Your task to perform on an android device: find snoozed emails in the gmail app Image 0: 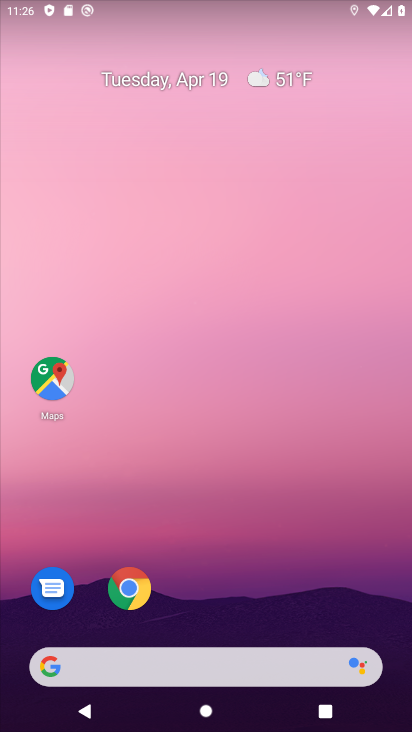
Step 0: drag from (218, 507) to (231, 8)
Your task to perform on an android device: find snoozed emails in the gmail app Image 1: 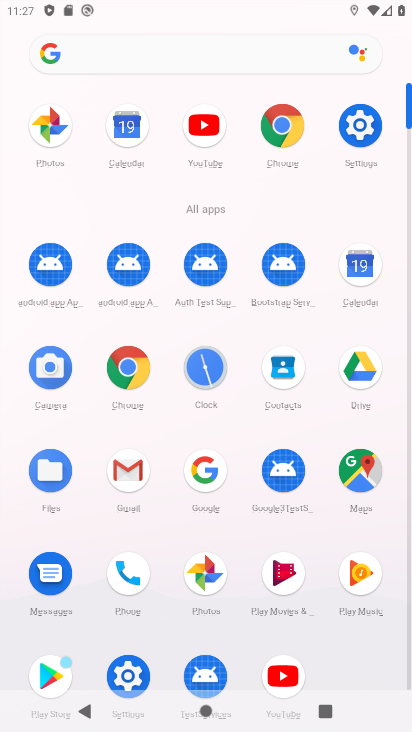
Step 1: click (127, 476)
Your task to perform on an android device: find snoozed emails in the gmail app Image 2: 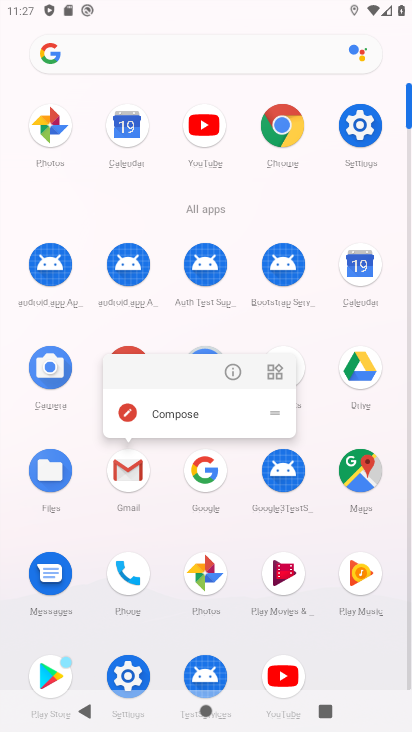
Step 2: click (124, 472)
Your task to perform on an android device: find snoozed emails in the gmail app Image 3: 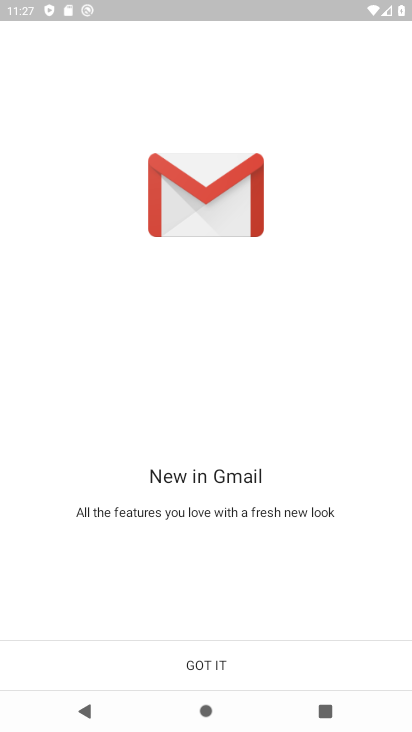
Step 3: click (212, 671)
Your task to perform on an android device: find snoozed emails in the gmail app Image 4: 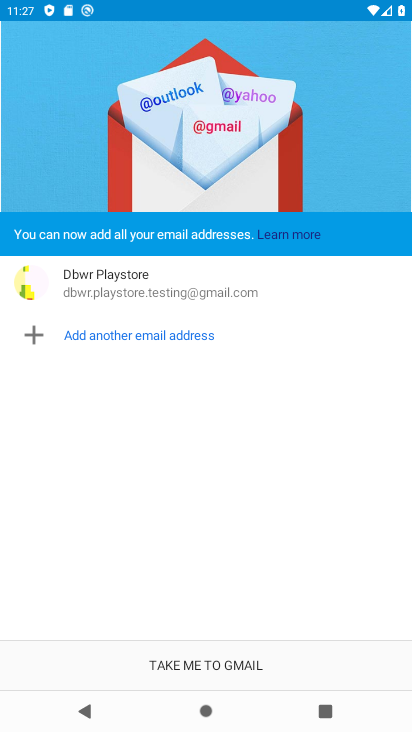
Step 4: click (201, 671)
Your task to perform on an android device: find snoozed emails in the gmail app Image 5: 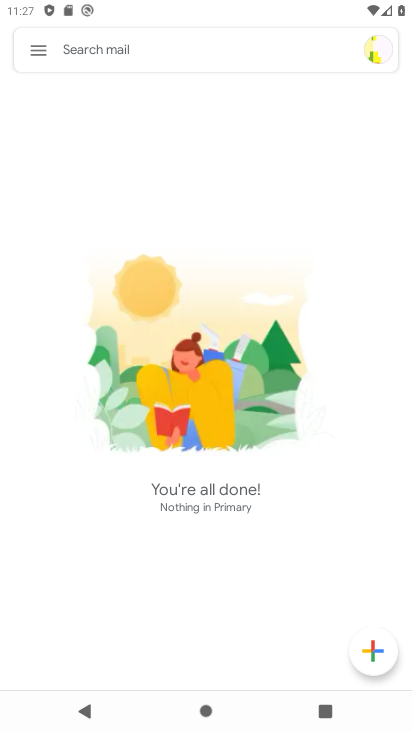
Step 5: click (35, 47)
Your task to perform on an android device: find snoozed emails in the gmail app Image 6: 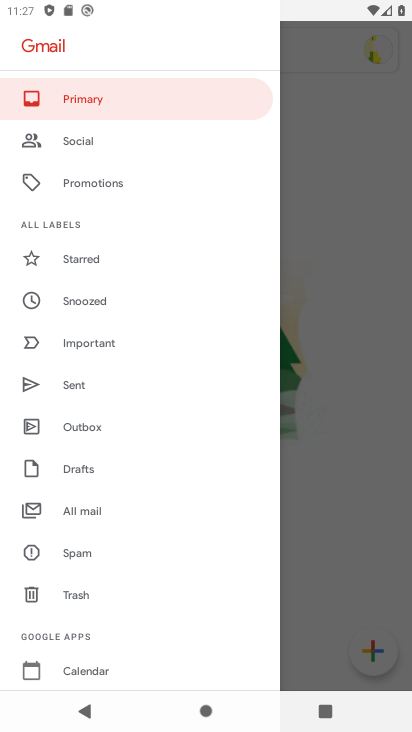
Step 6: click (119, 294)
Your task to perform on an android device: find snoozed emails in the gmail app Image 7: 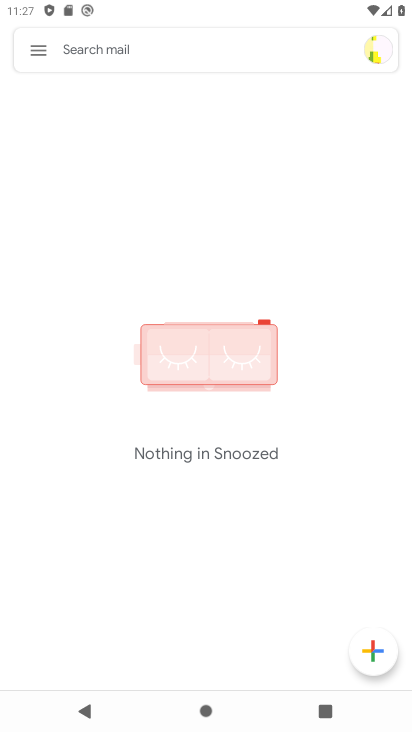
Step 7: task complete